Your task to perform on an android device: check out phone information Image 0: 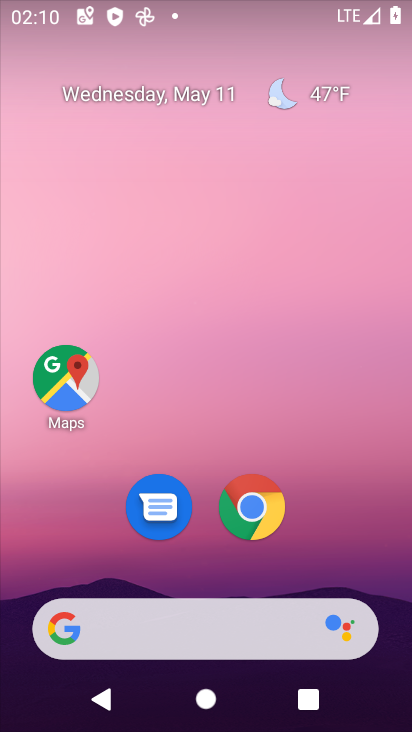
Step 0: click (229, 88)
Your task to perform on an android device: check out phone information Image 1: 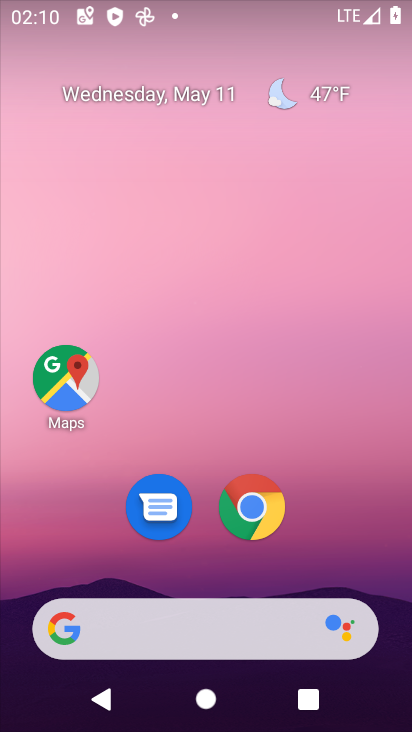
Step 1: click (277, 27)
Your task to perform on an android device: check out phone information Image 2: 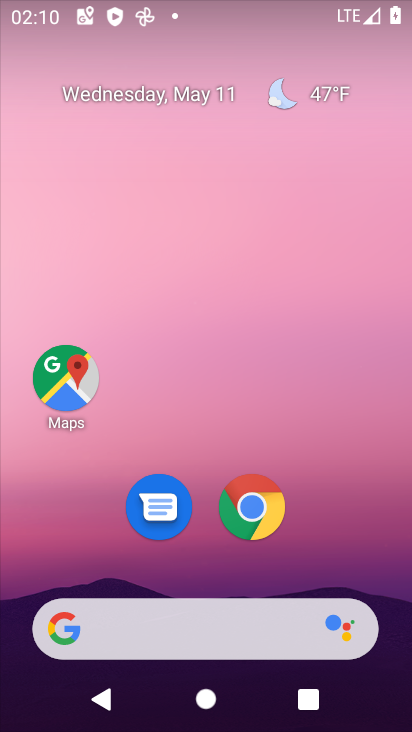
Step 2: drag from (255, 691) to (152, 85)
Your task to perform on an android device: check out phone information Image 3: 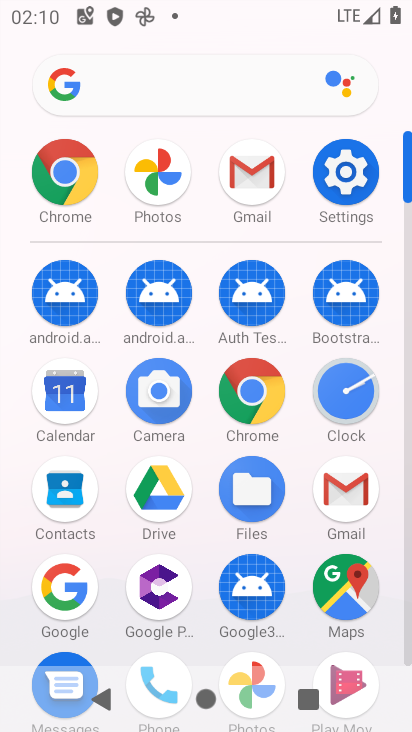
Step 3: click (331, 210)
Your task to perform on an android device: check out phone information Image 4: 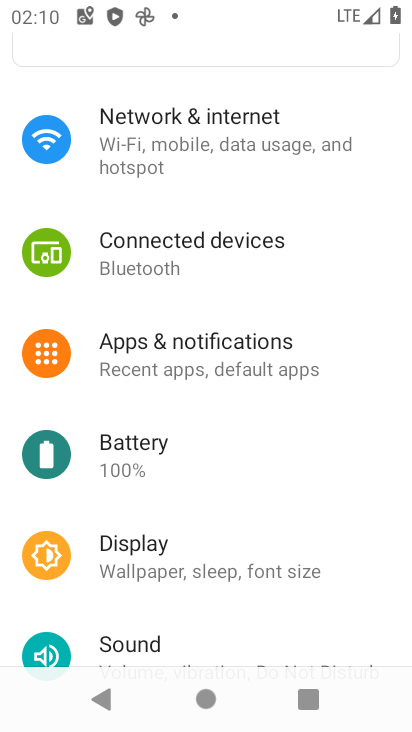
Step 4: drag from (233, 613) to (168, 125)
Your task to perform on an android device: check out phone information Image 5: 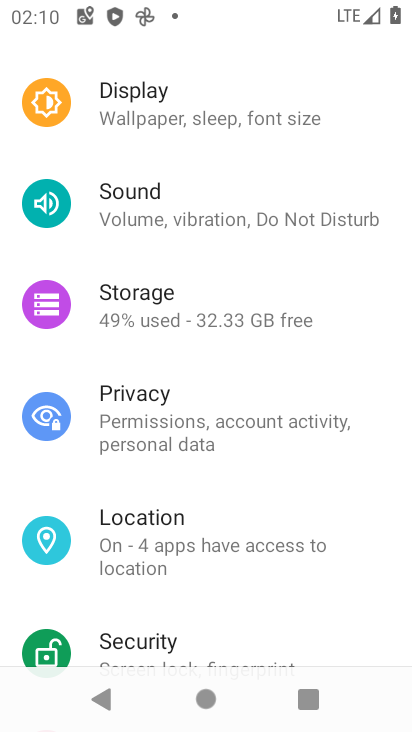
Step 5: drag from (207, 585) to (164, 223)
Your task to perform on an android device: check out phone information Image 6: 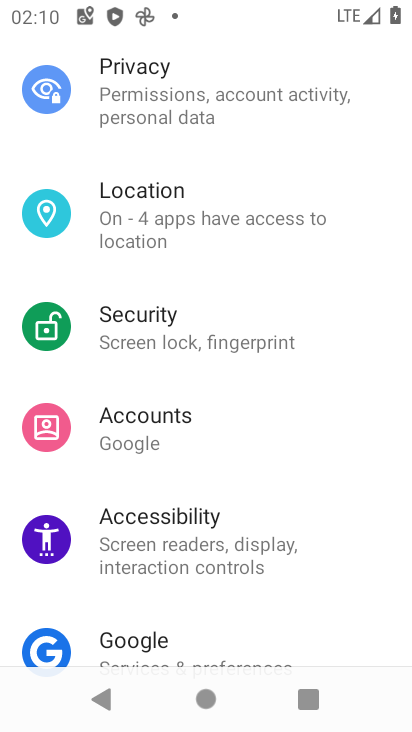
Step 6: drag from (205, 598) to (167, 189)
Your task to perform on an android device: check out phone information Image 7: 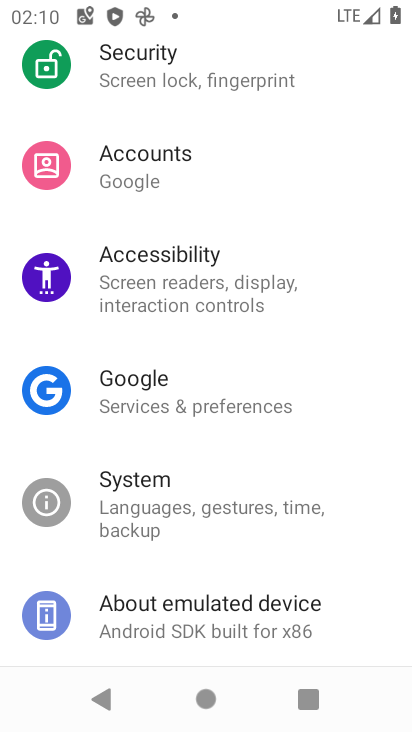
Step 7: drag from (212, 465) to (165, 80)
Your task to perform on an android device: check out phone information Image 8: 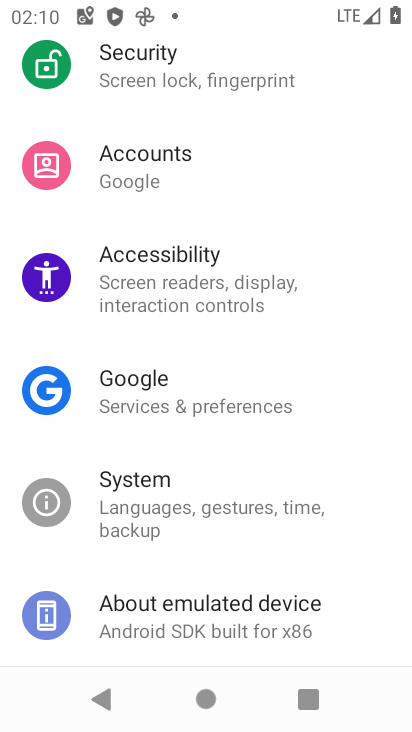
Step 8: click (217, 604)
Your task to perform on an android device: check out phone information Image 9: 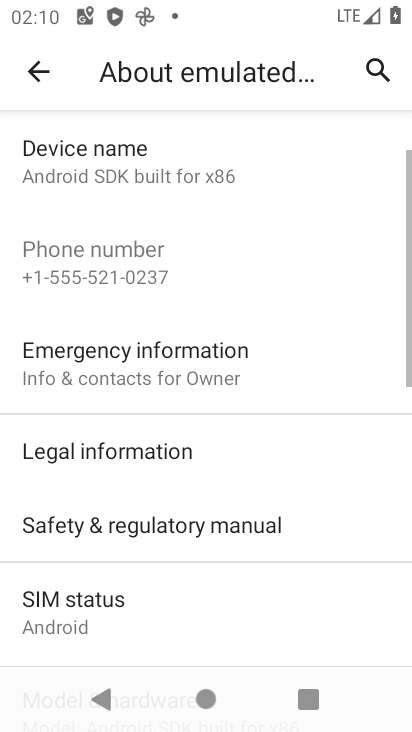
Step 9: task complete